Your task to perform on an android device: add a contact Image 0: 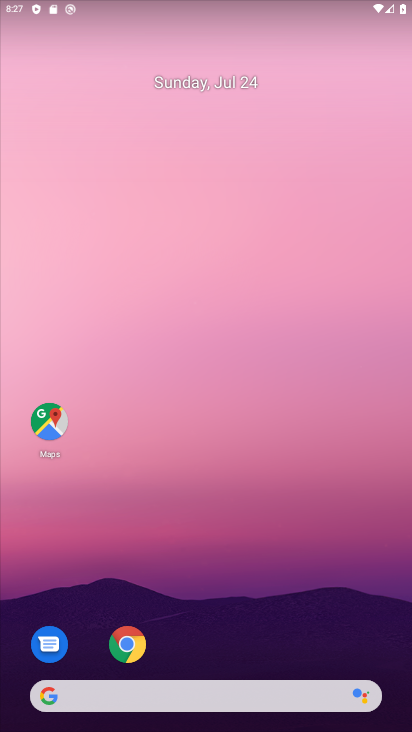
Step 0: drag from (230, 494) to (216, 158)
Your task to perform on an android device: add a contact Image 1: 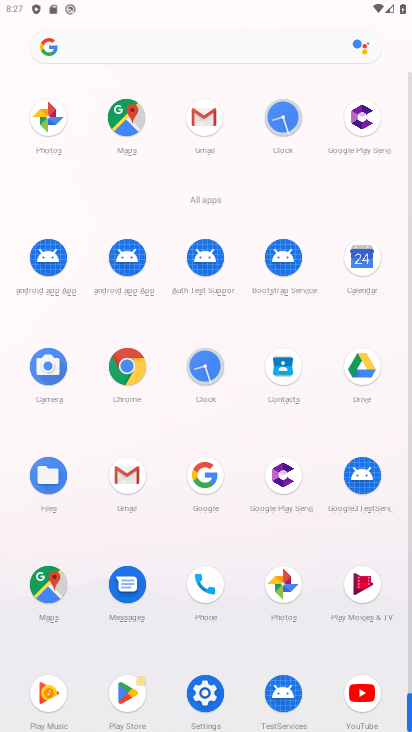
Step 1: click (284, 366)
Your task to perform on an android device: add a contact Image 2: 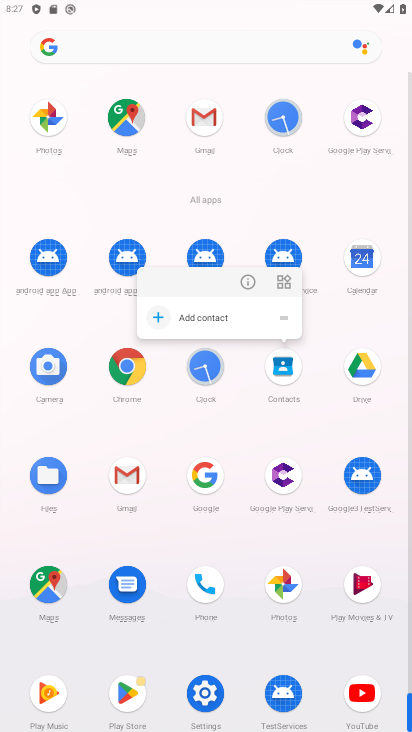
Step 2: click (283, 366)
Your task to perform on an android device: add a contact Image 3: 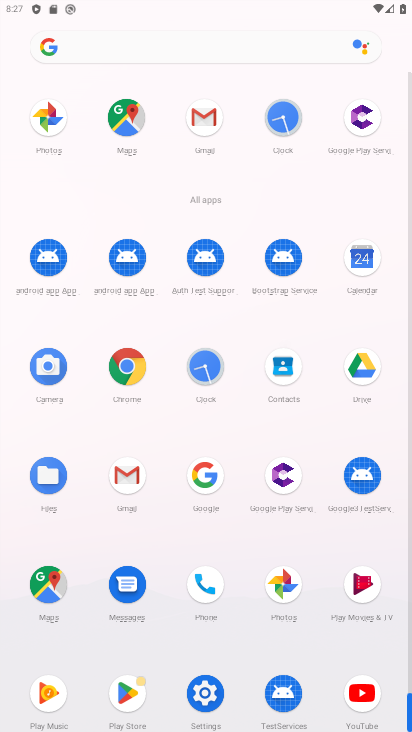
Step 3: click (282, 368)
Your task to perform on an android device: add a contact Image 4: 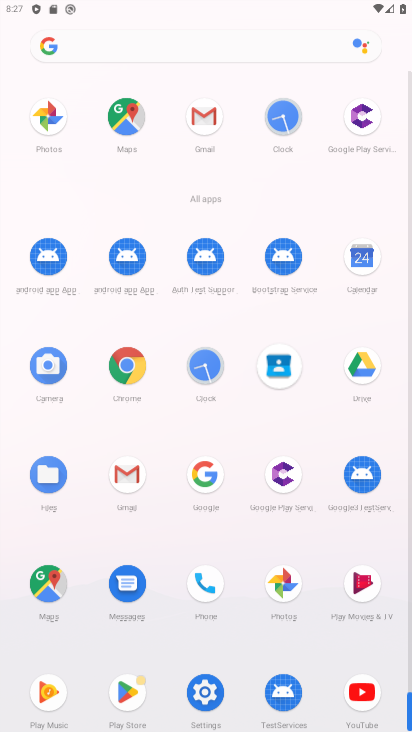
Step 4: click (283, 369)
Your task to perform on an android device: add a contact Image 5: 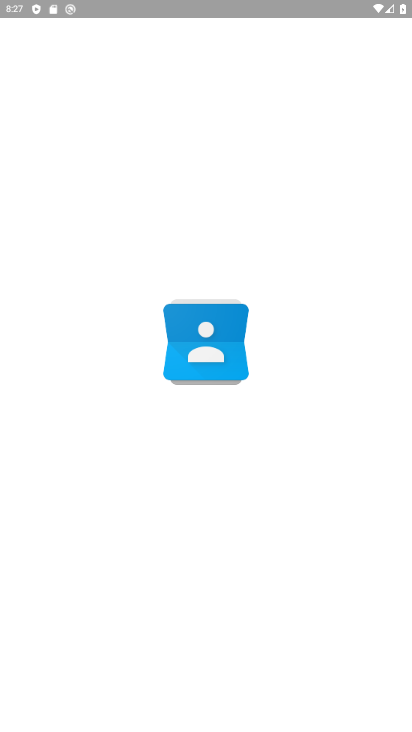
Step 5: click (285, 367)
Your task to perform on an android device: add a contact Image 6: 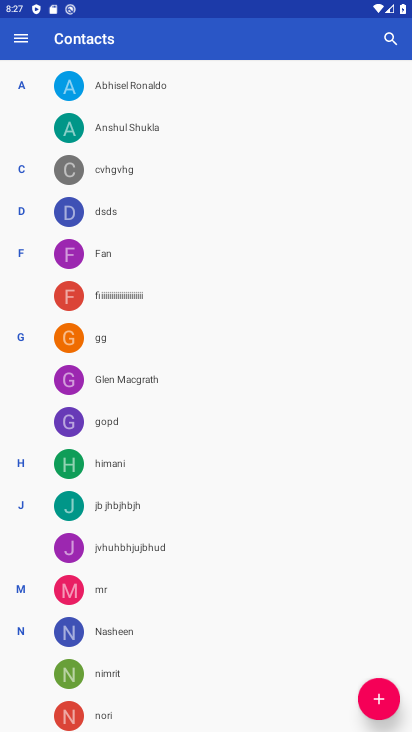
Step 6: click (374, 686)
Your task to perform on an android device: add a contact Image 7: 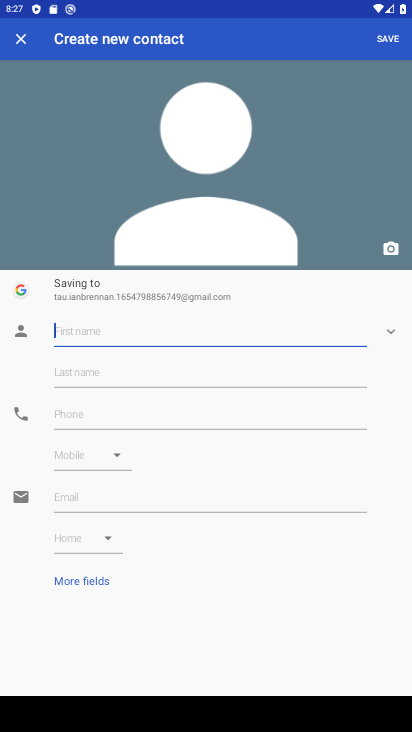
Step 7: type "xhbjhbchj"
Your task to perform on an android device: add a contact Image 8: 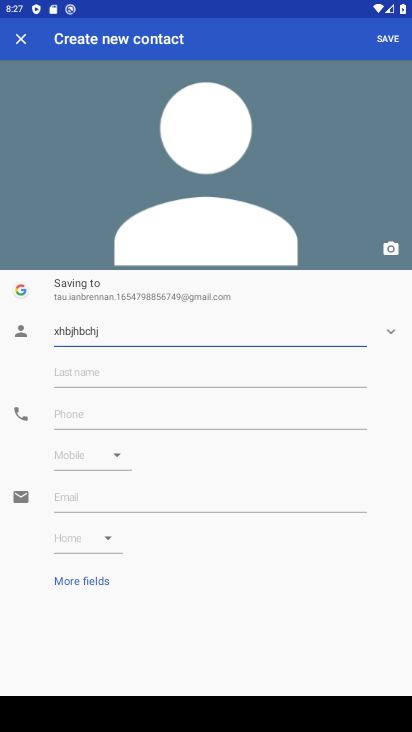
Step 8: click (64, 413)
Your task to perform on an android device: add a contact Image 9: 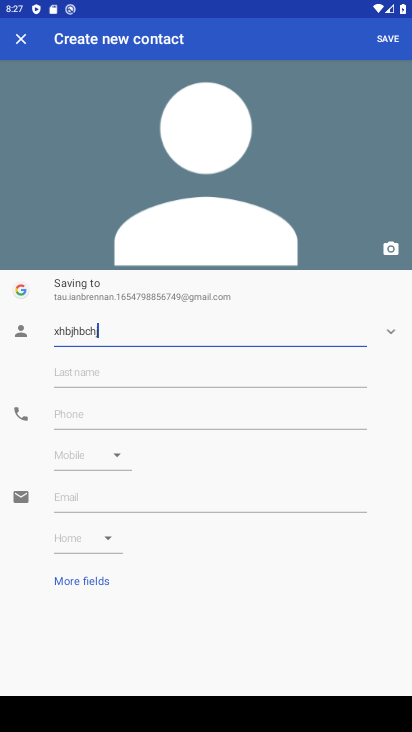
Step 9: click (64, 413)
Your task to perform on an android device: add a contact Image 10: 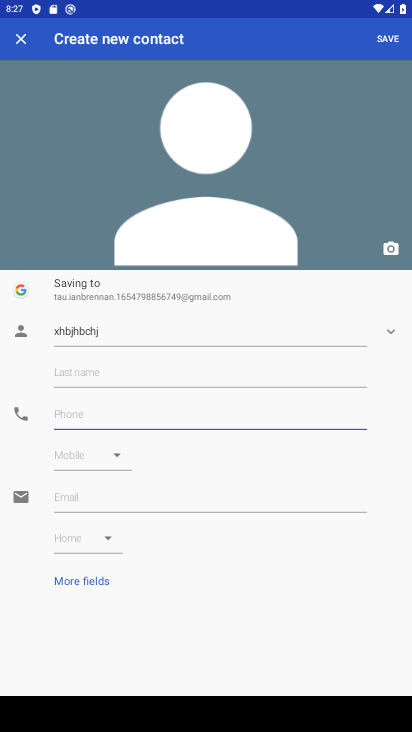
Step 10: click (64, 413)
Your task to perform on an android device: add a contact Image 11: 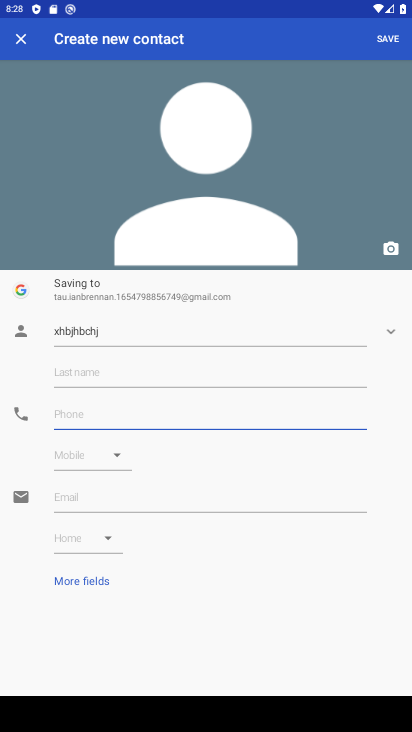
Step 11: type "67846877584379"
Your task to perform on an android device: add a contact Image 12: 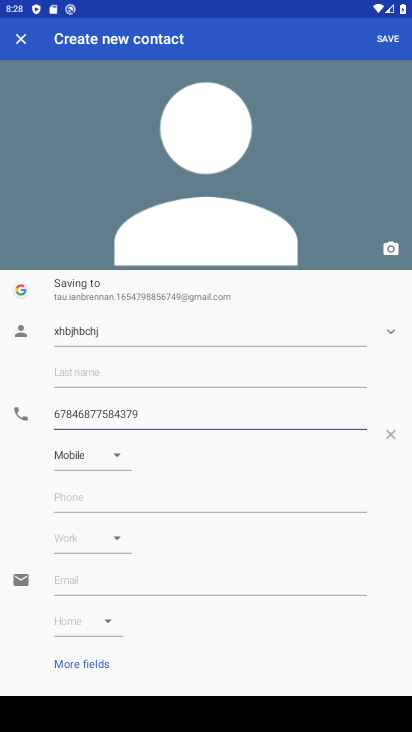
Step 12: click (381, 38)
Your task to perform on an android device: add a contact Image 13: 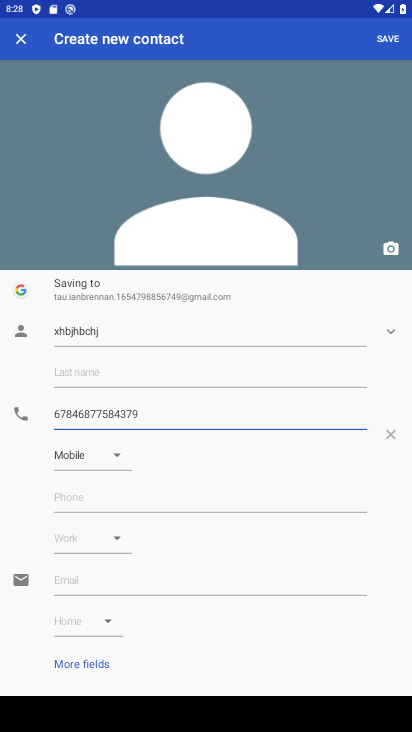
Step 13: click (381, 38)
Your task to perform on an android device: add a contact Image 14: 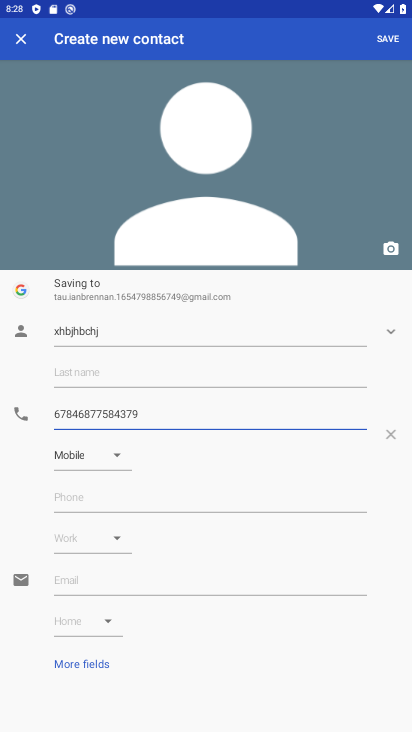
Step 14: click (381, 38)
Your task to perform on an android device: add a contact Image 15: 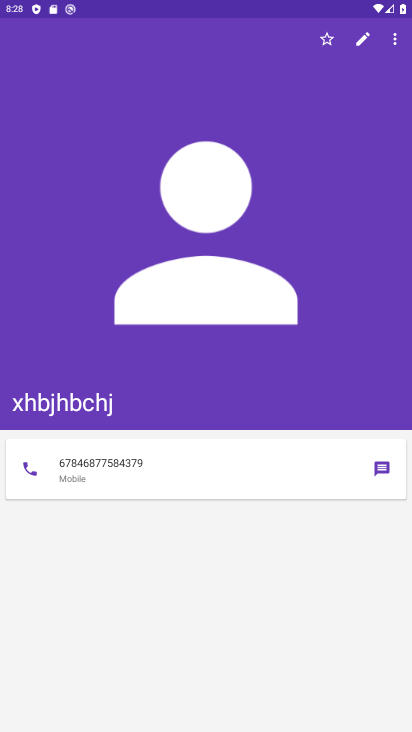
Step 15: task complete